Your task to perform on an android device: Go to privacy settings Image 0: 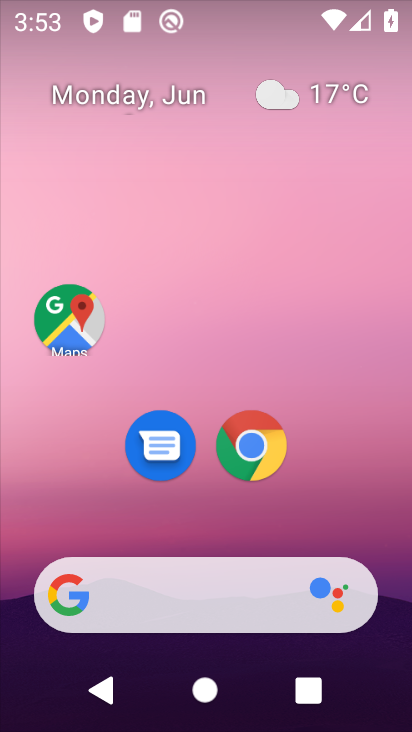
Step 0: click (254, 448)
Your task to perform on an android device: Go to privacy settings Image 1: 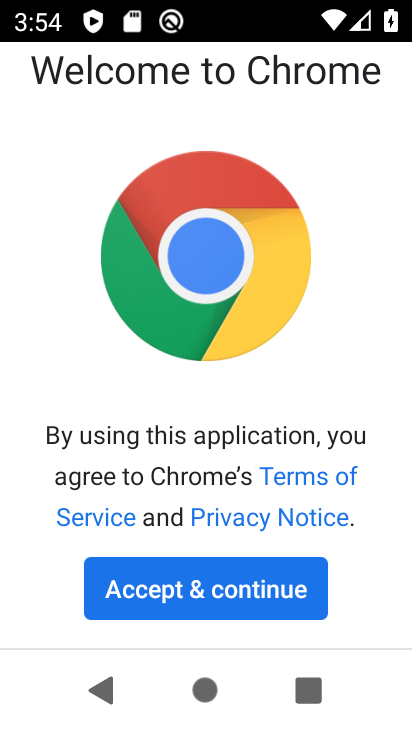
Step 1: press home button
Your task to perform on an android device: Go to privacy settings Image 2: 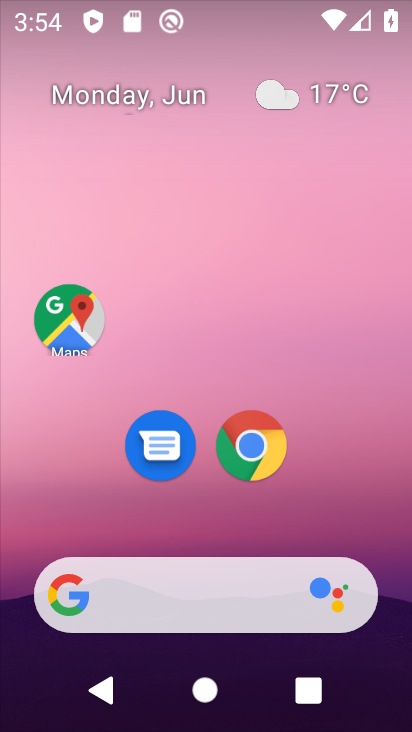
Step 2: drag from (193, 518) to (203, 50)
Your task to perform on an android device: Go to privacy settings Image 3: 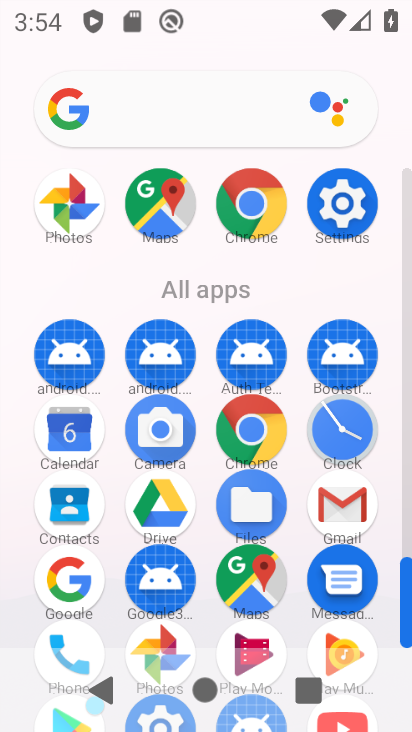
Step 3: click (341, 213)
Your task to perform on an android device: Go to privacy settings Image 4: 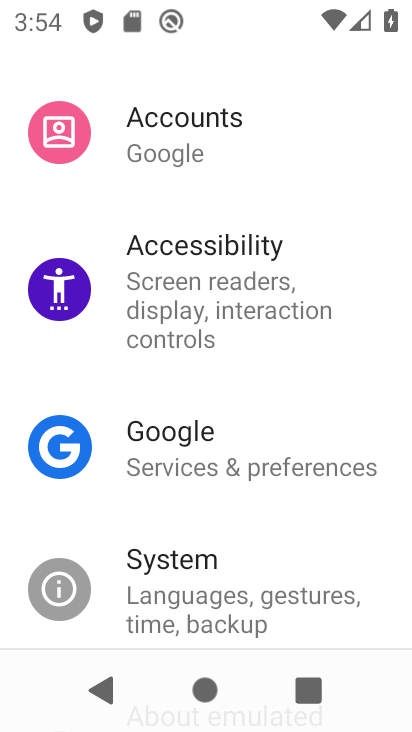
Step 4: drag from (232, 390) to (217, 627)
Your task to perform on an android device: Go to privacy settings Image 5: 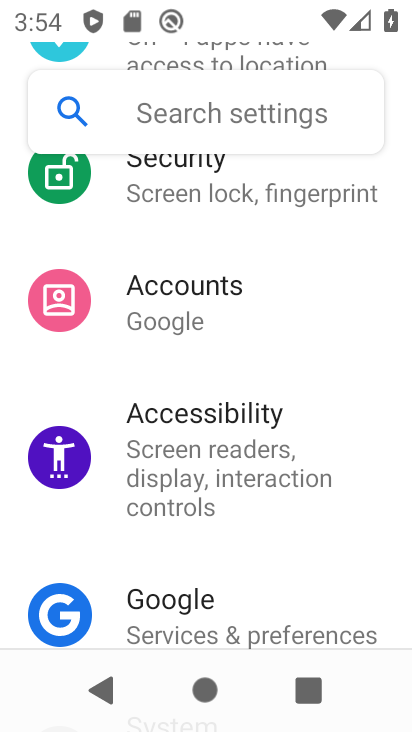
Step 5: drag from (218, 319) to (216, 542)
Your task to perform on an android device: Go to privacy settings Image 6: 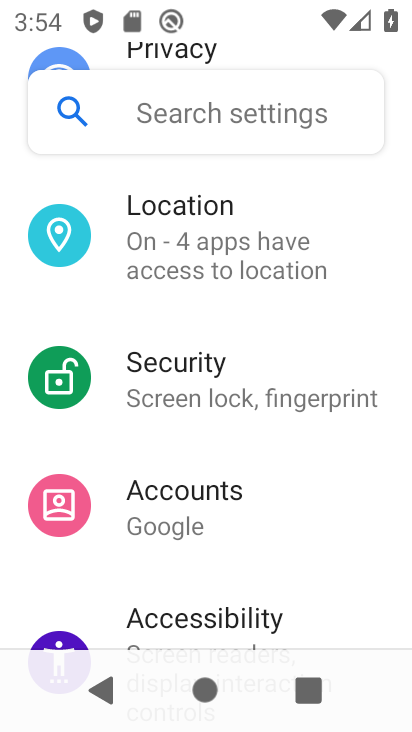
Step 6: drag from (212, 286) to (219, 551)
Your task to perform on an android device: Go to privacy settings Image 7: 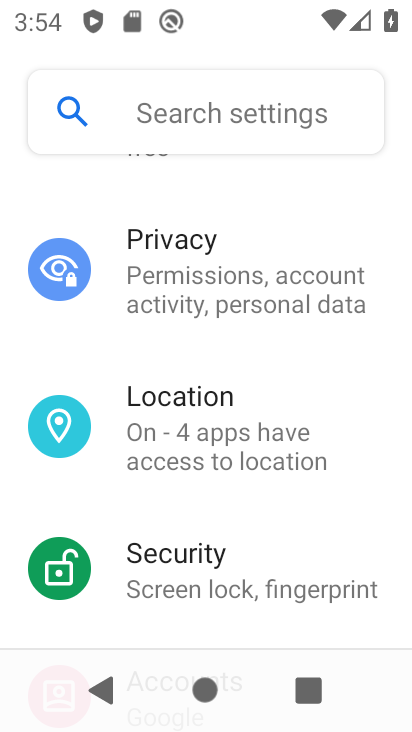
Step 7: click (170, 281)
Your task to perform on an android device: Go to privacy settings Image 8: 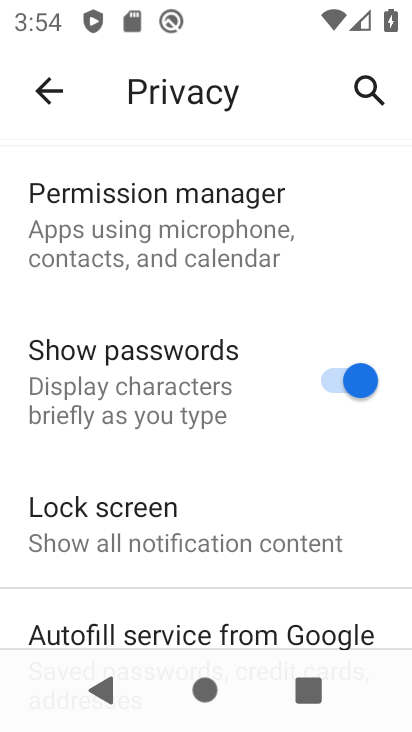
Step 8: task complete